Your task to perform on an android device: Open the web browser Image 0: 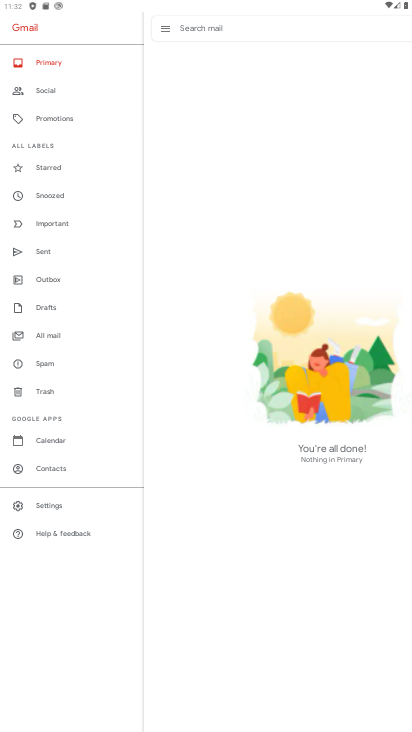
Step 0: press home button
Your task to perform on an android device: Open the web browser Image 1: 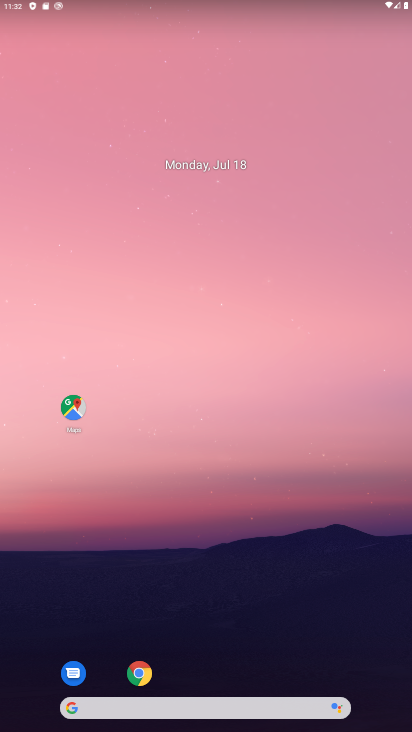
Step 1: click (144, 676)
Your task to perform on an android device: Open the web browser Image 2: 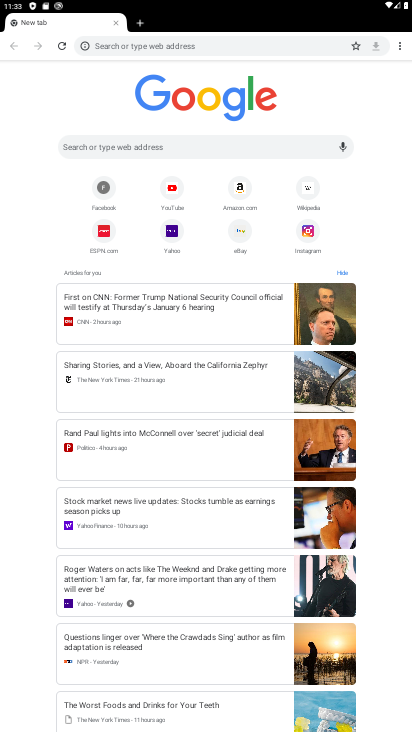
Step 2: task complete